Your task to perform on an android device: turn notification dots off Image 0: 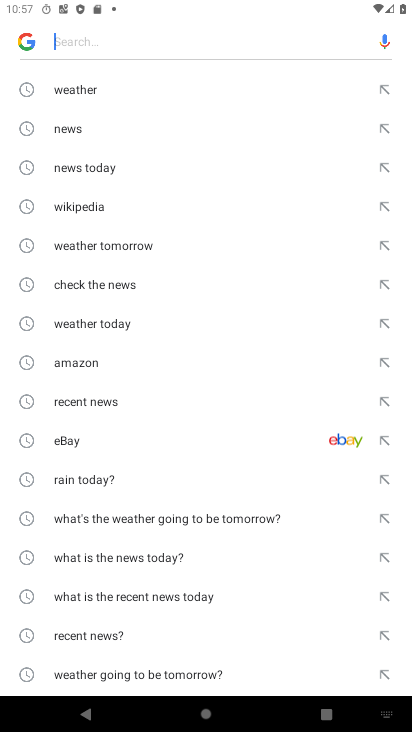
Step 0: press home button
Your task to perform on an android device: turn notification dots off Image 1: 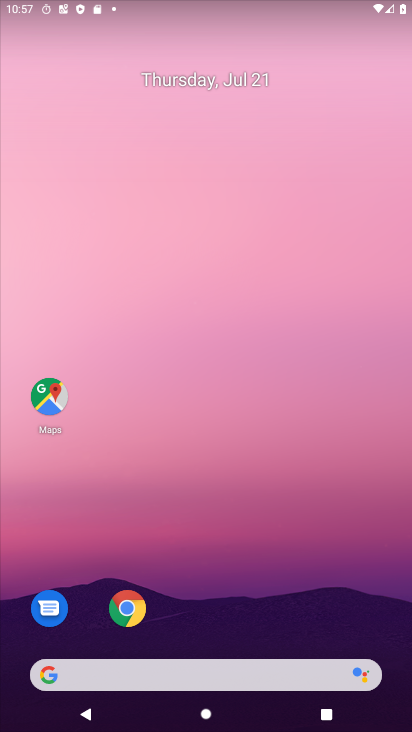
Step 1: drag from (165, 552) to (164, 103)
Your task to perform on an android device: turn notification dots off Image 2: 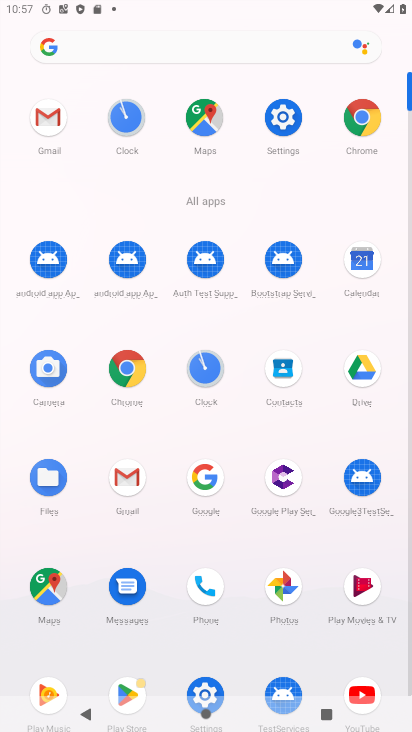
Step 2: click (286, 128)
Your task to perform on an android device: turn notification dots off Image 3: 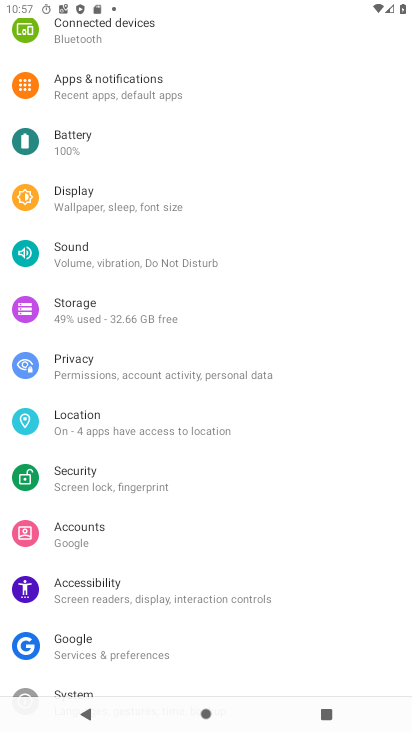
Step 3: click (74, 98)
Your task to perform on an android device: turn notification dots off Image 4: 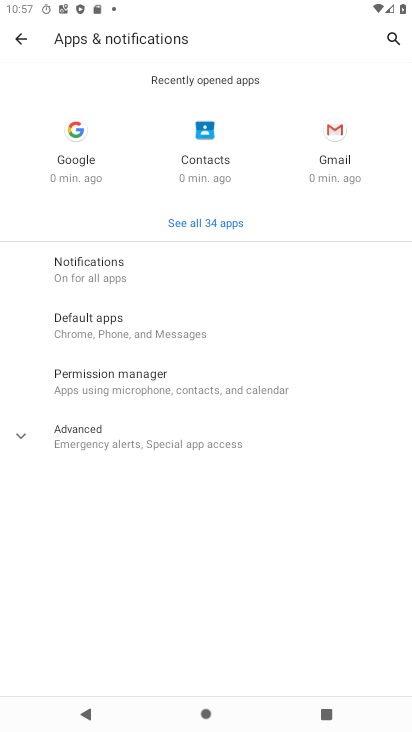
Step 4: click (70, 440)
Your task to perform on an android device: turn notification dots off Image 5: 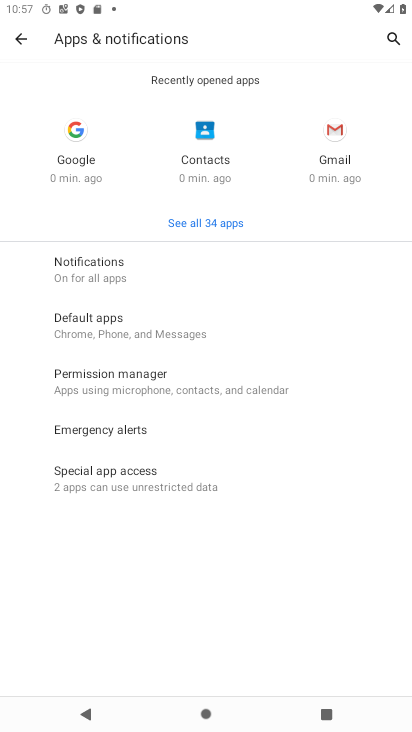
Step 5: click (123, 276)
Your task to perform on an android device: turn notification dots off Image 6: 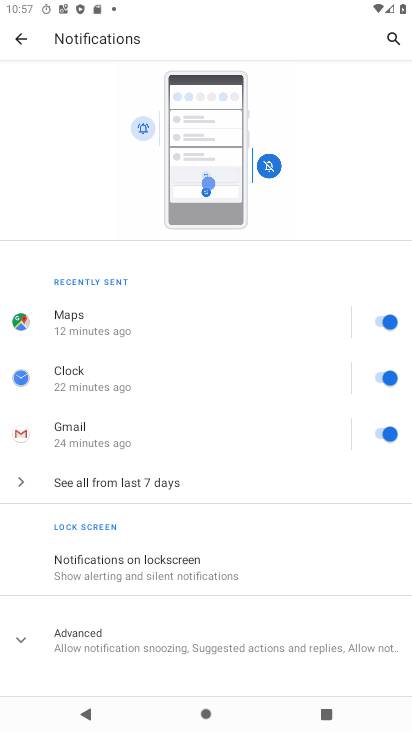
Step 6: drag from (152, 607) to (205, 354)
Your task to perform on an android device: turn notification dots off Image 7: 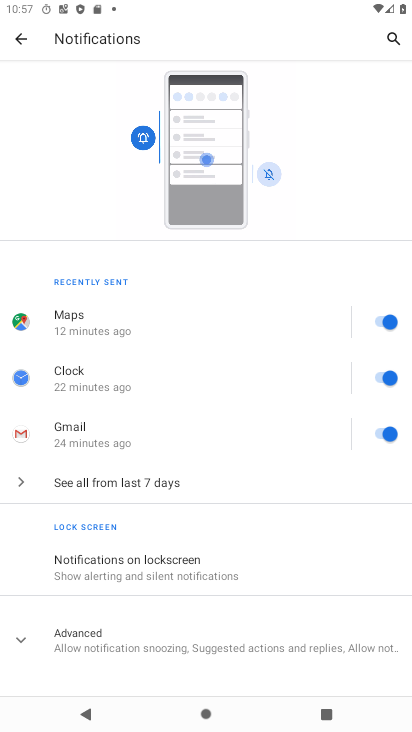
Step 7: click (78, 644)
Your task to perform on an android device: turn notification dots off Image 8: 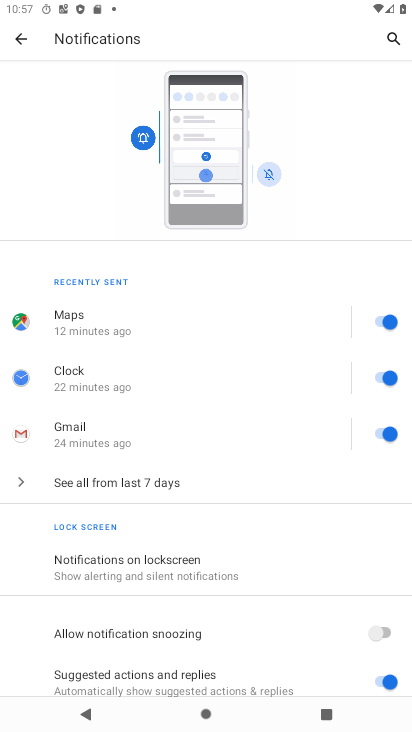
Step 8: drag from (150, 507) to (208, 312)
Your task to perform on an android device: turn notification dots off Image 9: 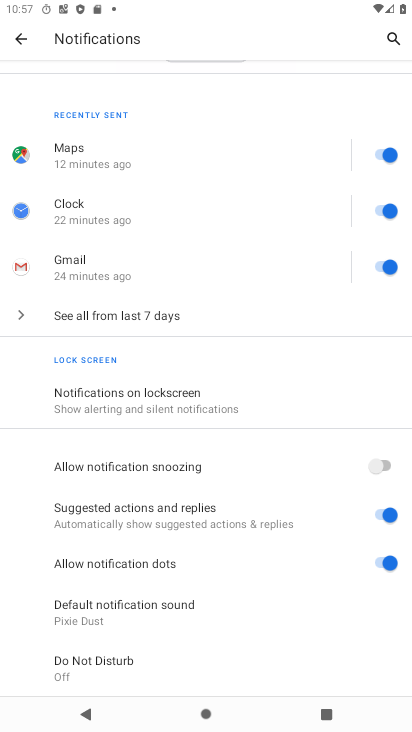
Step 9: click (380, 560)
Your task to perform on an android device: turn notification dots off Image 10: 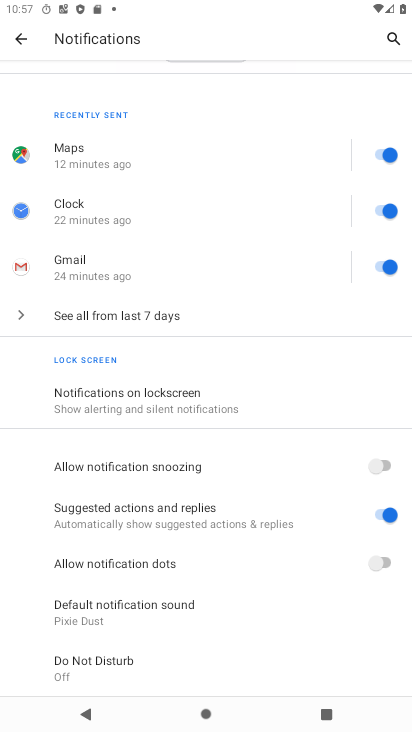
Step 10: task complete